Your task to perform on an android device: turn on translation in the chrome app Image 0: 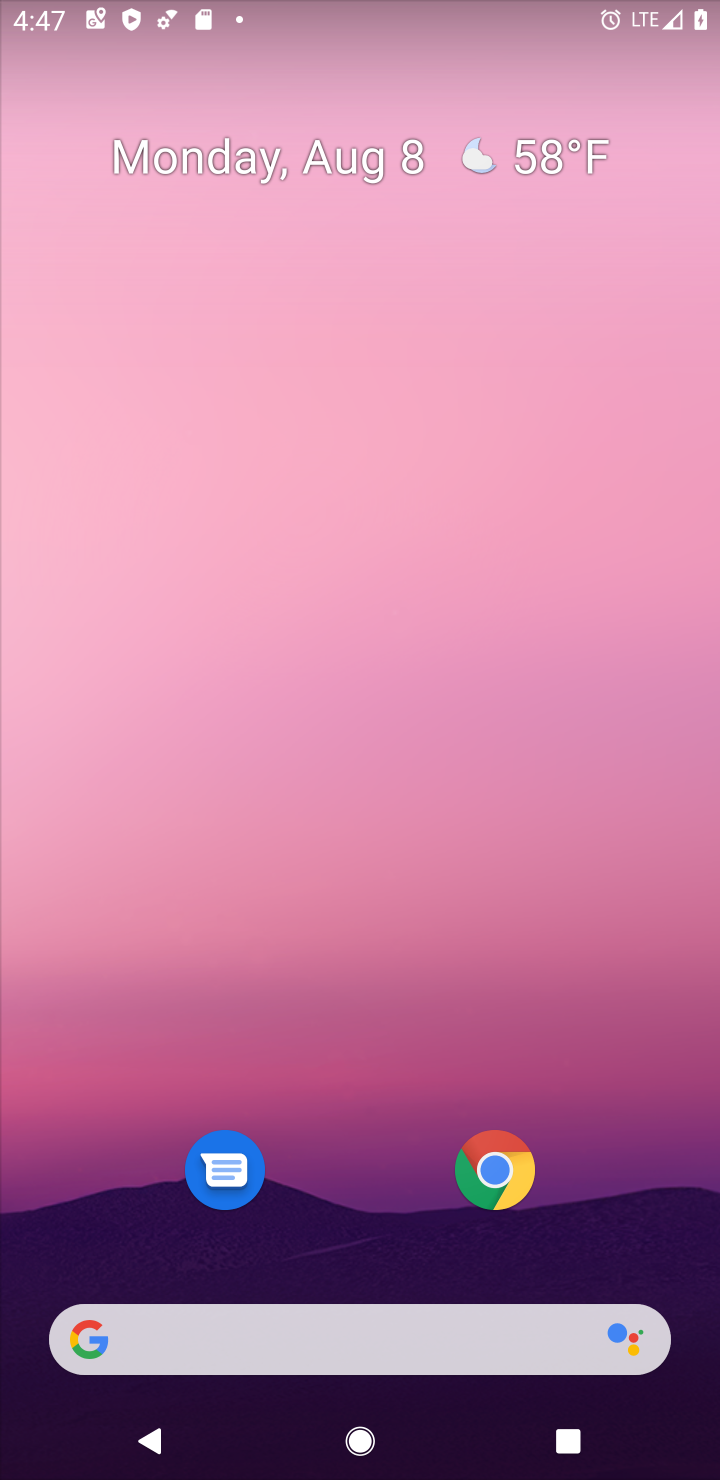
Step 0: click (482, 1202)
Your task to perform on an android device: turn on translation in the chrome app Image 1: 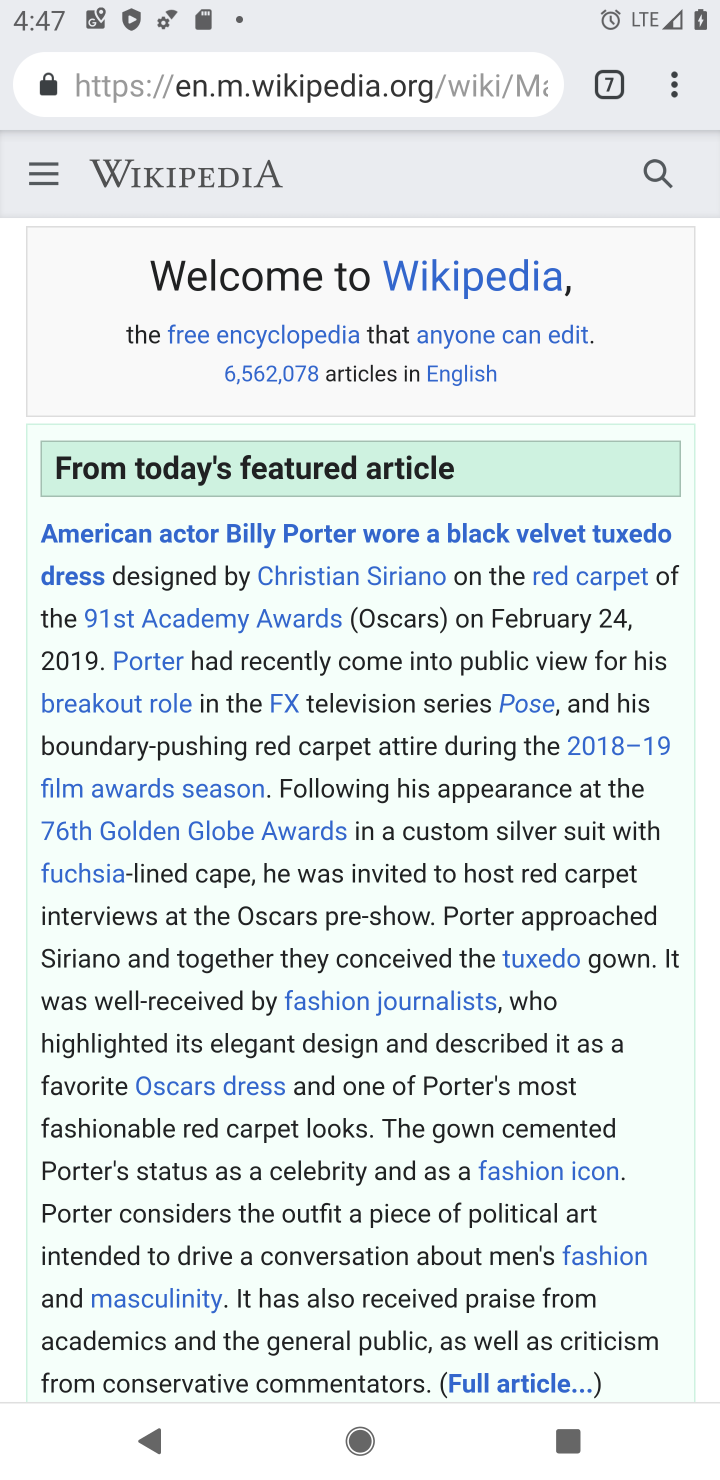
Step 1: click (665, 91)
Your task to perform on an android device: turn on translation in the chrome app Image 2: 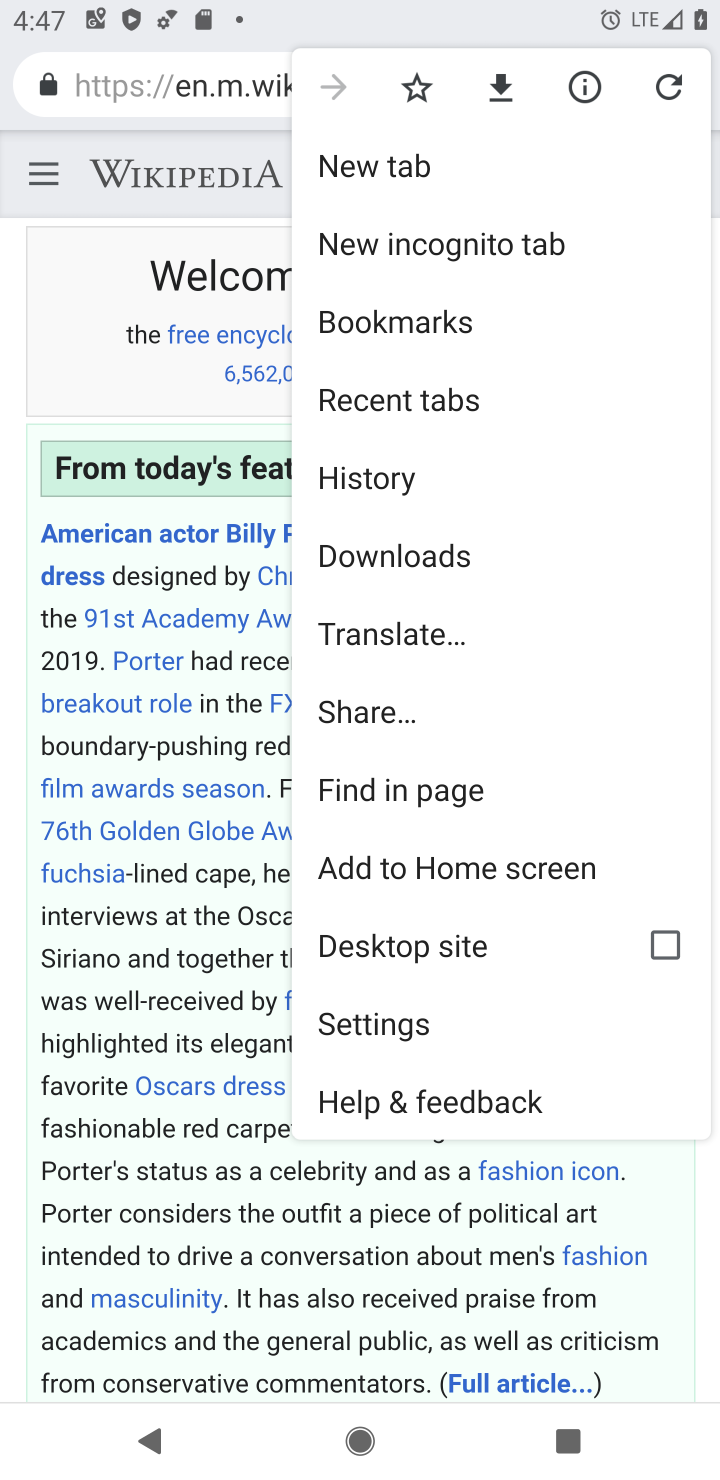
Step 2: click (388, 1025)
Your task to perform on an android device: turn on translation in the chrome app Image 3: 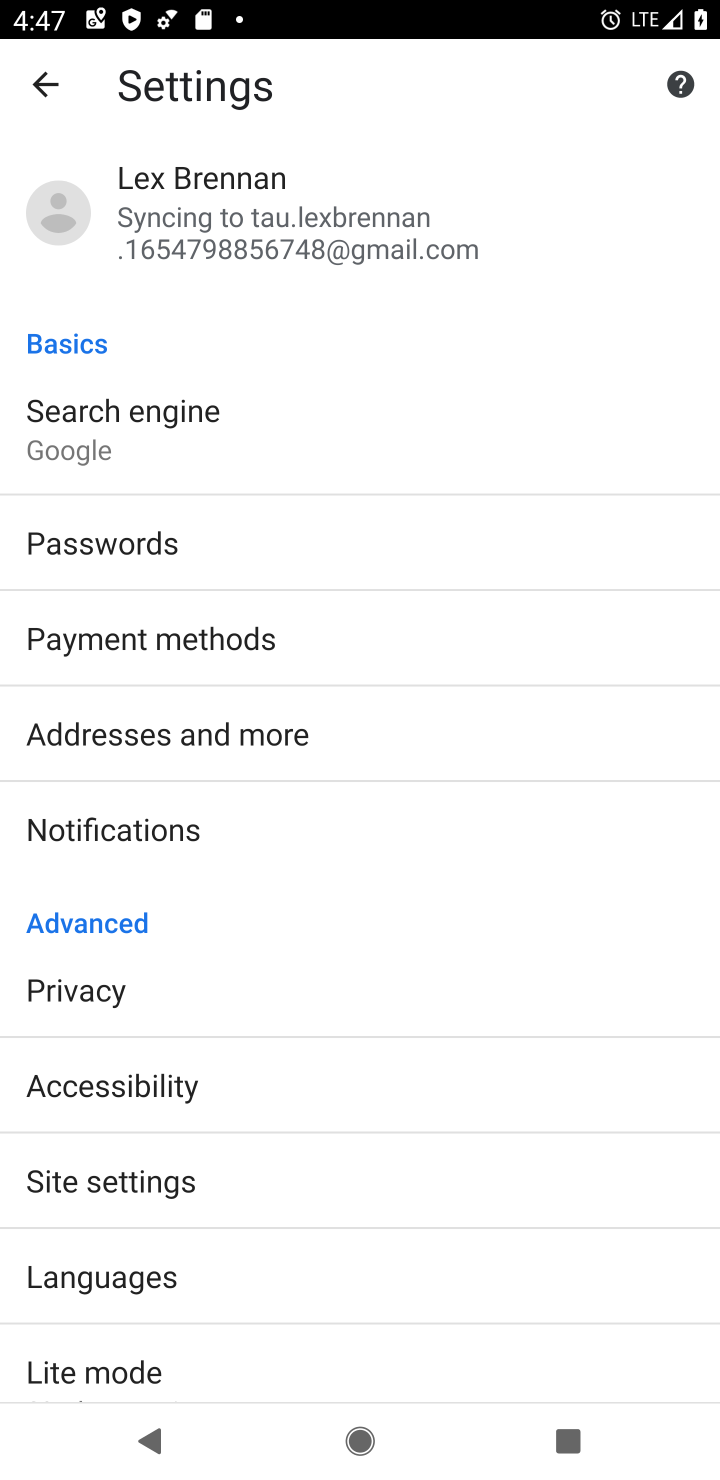
Step 3: click (160, 1247)
Your task to perform on an android device: turn on translation in the chrome app Image 4: 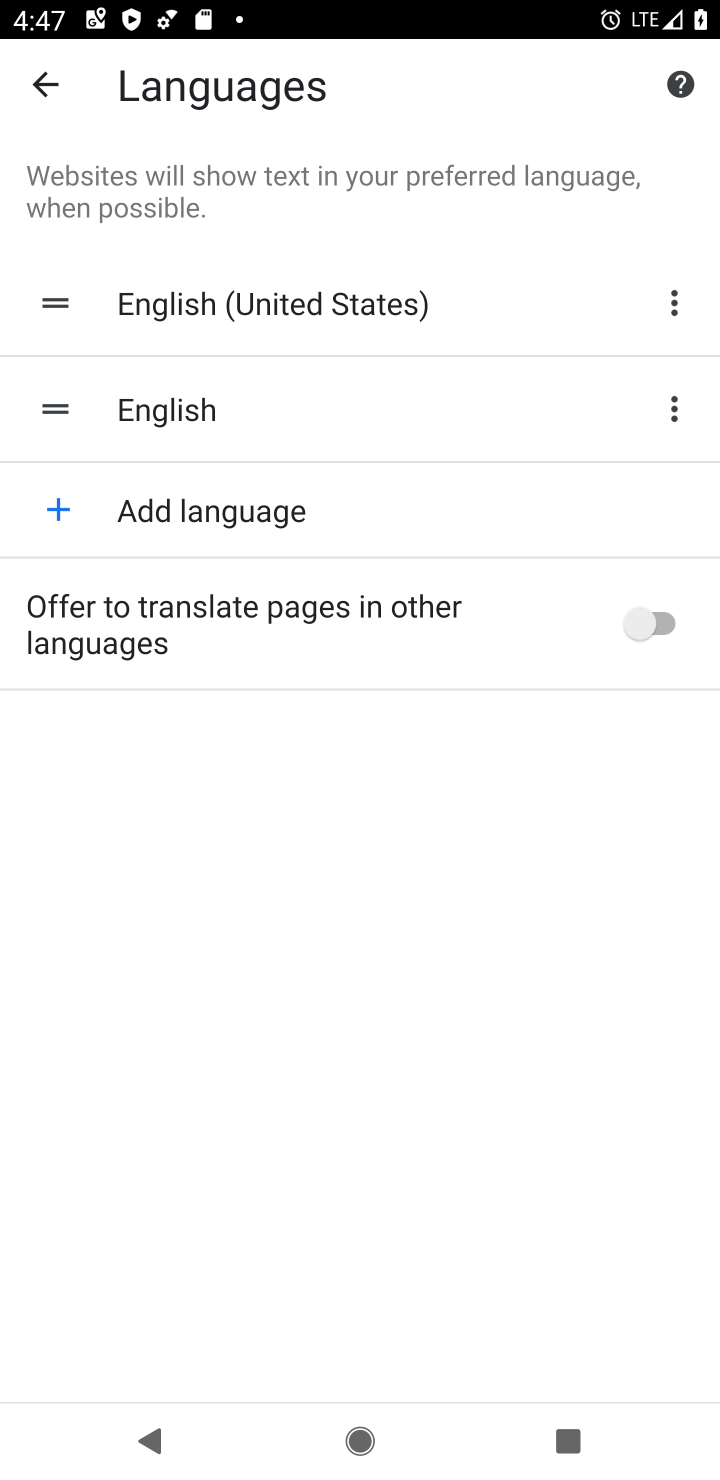
Step 4: click (654, 642)
Your task to perform on an android device: turn on translation in the chrome app Image 5: 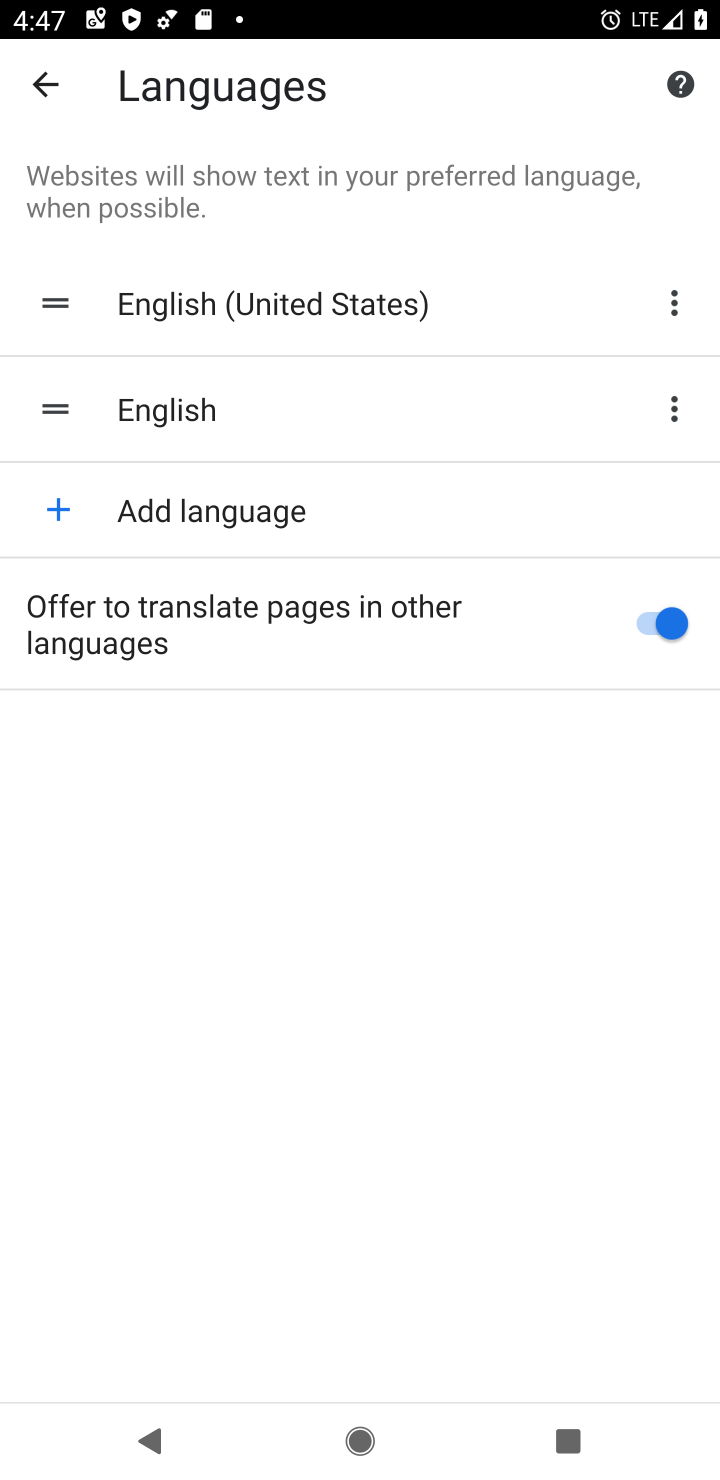
Step 5: task complete